Your task to perform on an android device: turn on showing notifications on the lock screen Image 0: 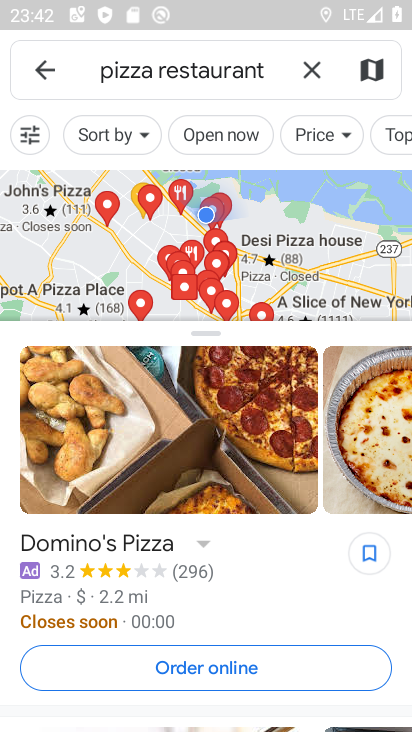
Step 0: press home button
Your task to perform on an android device: turn on showing notifications on the lock screen Image 1: 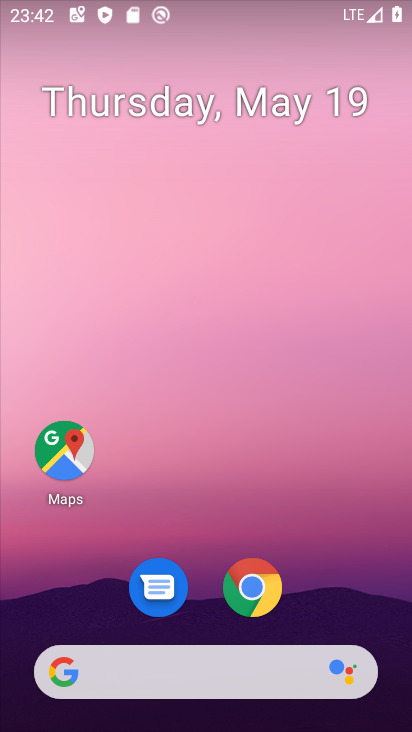
Step 1: drag from (288, 683) to (252, 208)
Your task to perform on an android device: turn on showing notifications on the lock screen Image 2: 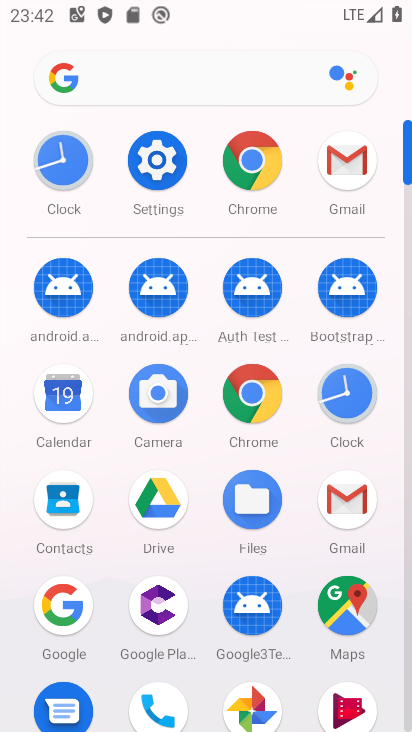
Step 2: click (166, 158)
Your task to perform on an android device: turn on showing notifications on the lock screen Image 3: 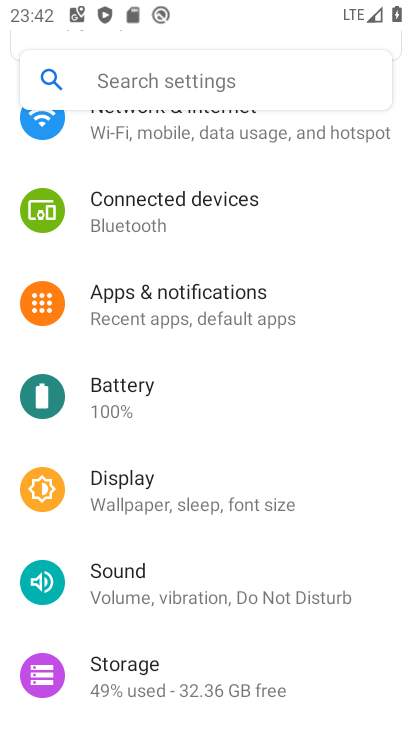
Step 3: click (174, 81)
Your task to perform on an android device: turn on showing notifications on the lock screen Image 4: 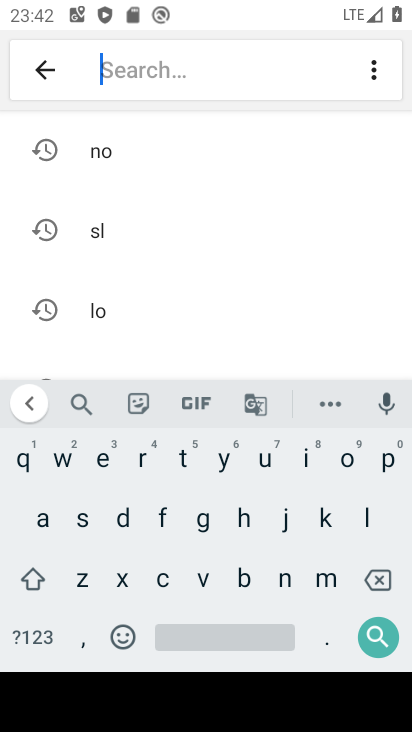
Step 4: click (291, 568)
Your task to perform on an android device: turn on showing notifications on the lock screen Image 5: 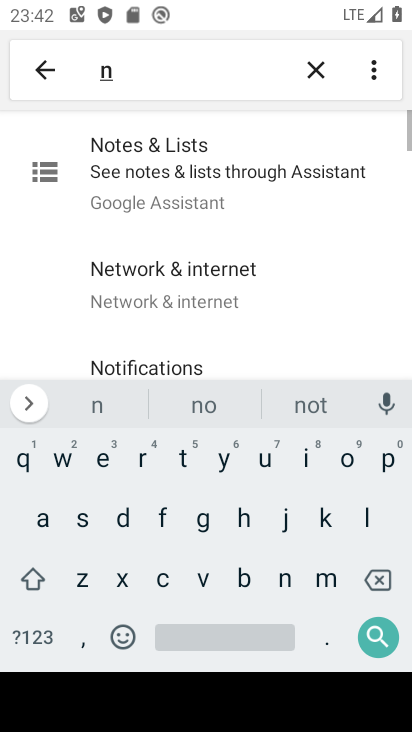
Step 5: click (351, 461)
Your task to perform on an android device: turn on showing notifications on the lock screen Image 6: 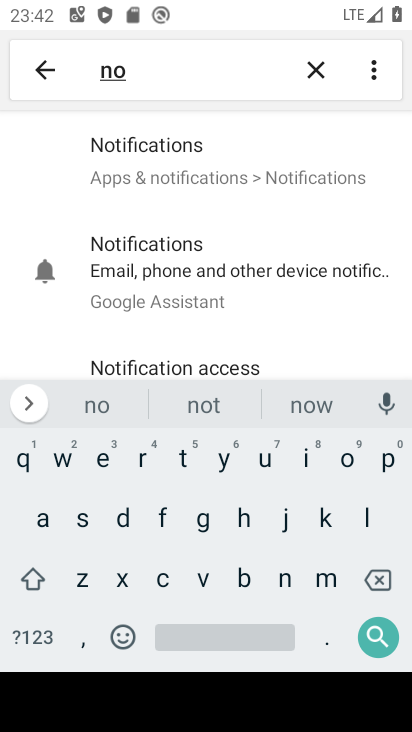
Step 6: click (143, 159)
Your task to perform on an android device: turn on showing notifications on the lock screen Image 7: 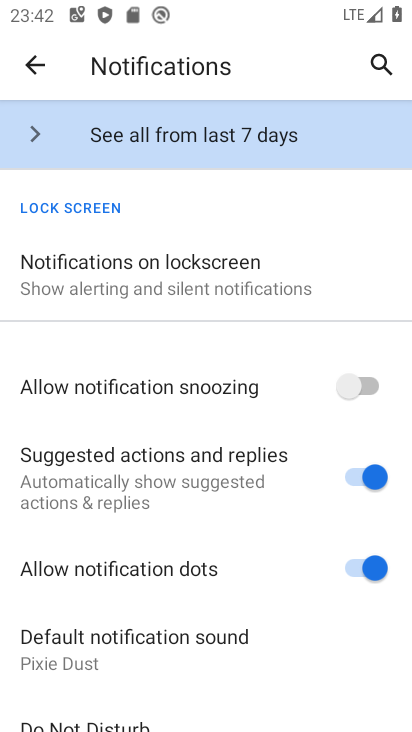
Step 7: click (125, 282)
Your task to perform on an android device: turn on showing notifications on the lock screen Image 8: 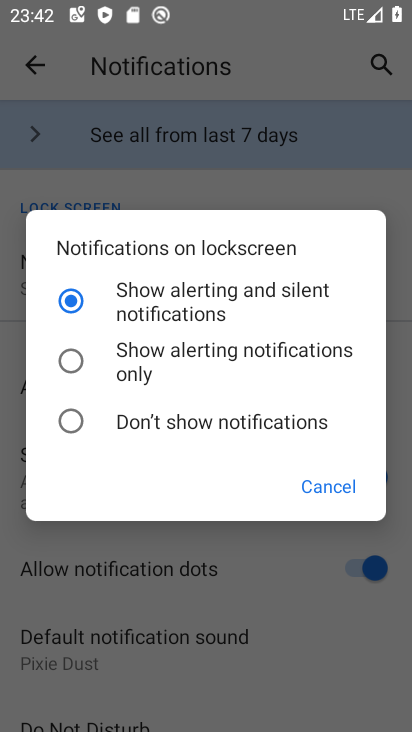
Step 8: task complete